Your task to perform on an android device: install app "PlayWell" Image 0: 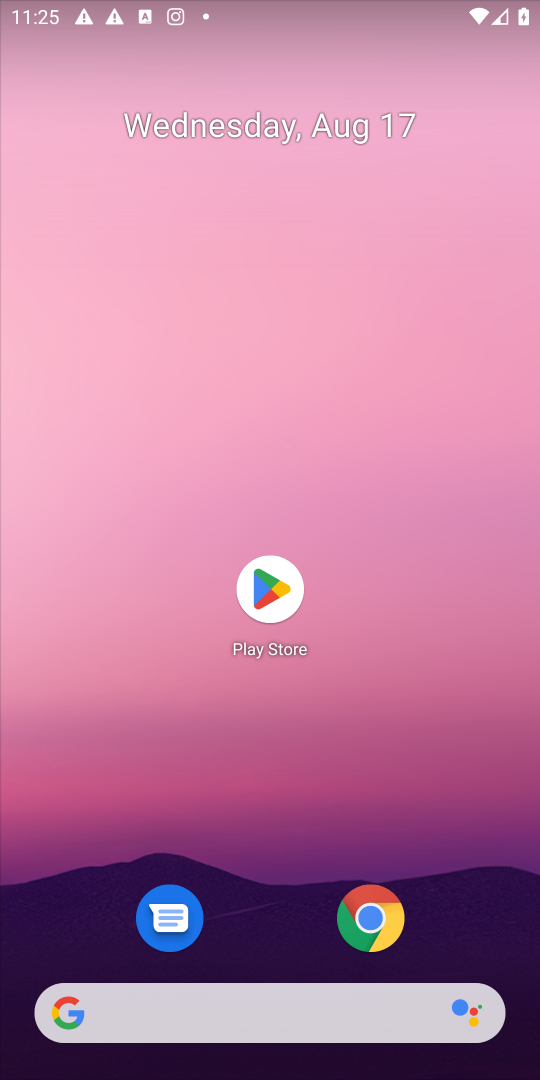
Step 0: click (278, 591)
Your task to perform on an android device: install app "PlayWell" Image 1: 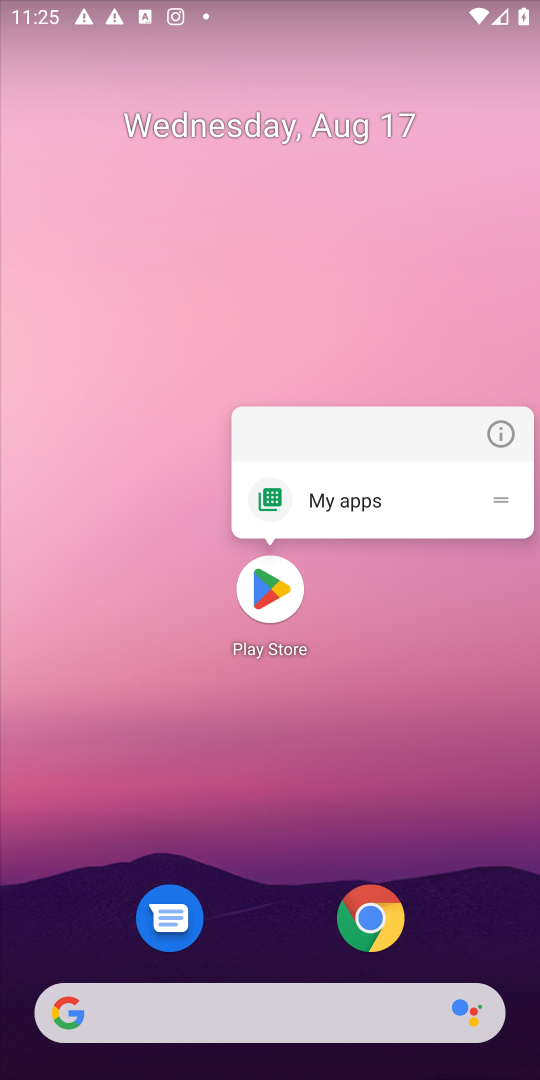
Step 1: click (272, 598)
Your task to perform on an android device: install app "PlayWell" Image 2: 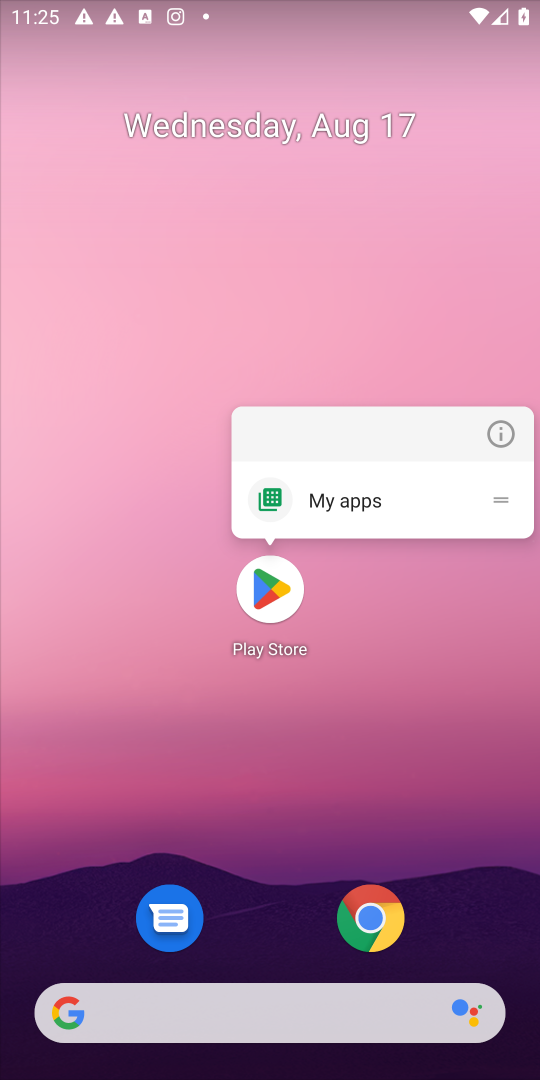
Step 2: click (263, 588)
Your task to perform on an android device: install app "PlayWell" Image 3: 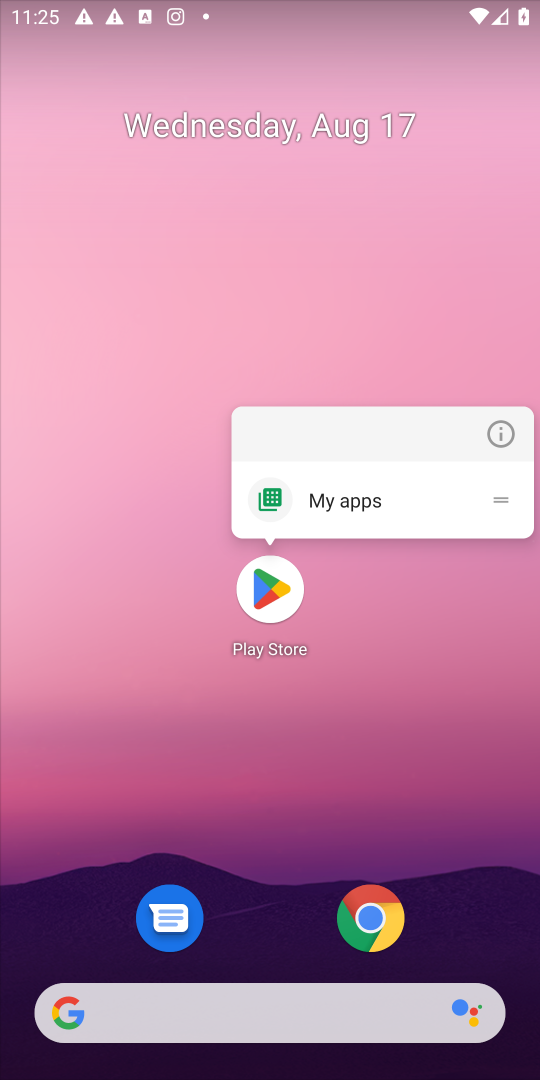
Step 3: click (266, 584)
Your task to perform on an android device: install app "PlayWell" Image 4: 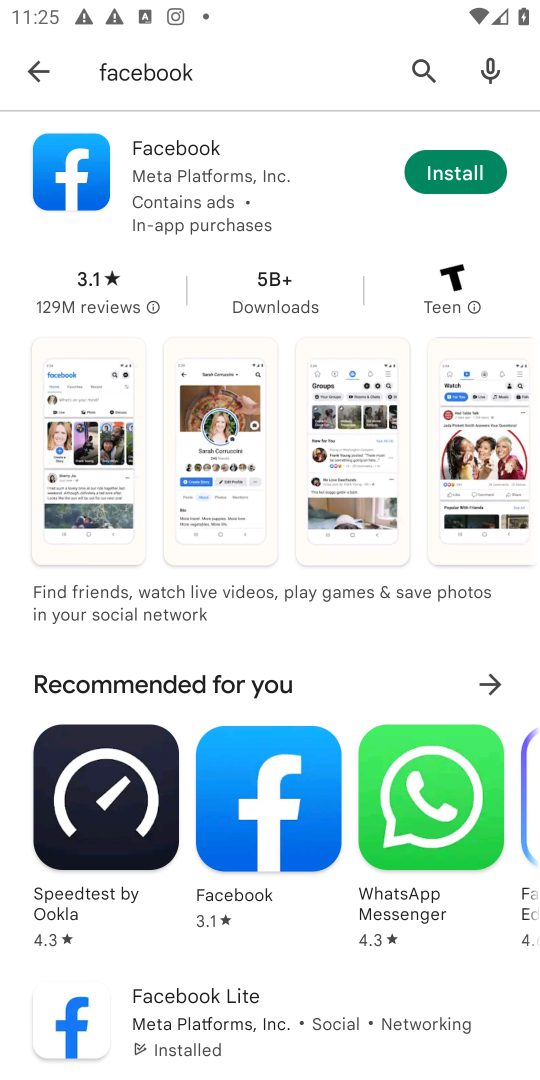
Step 4: click (414, 60)
Your task to perform on an android device: install app "PlayWell" Image 5: 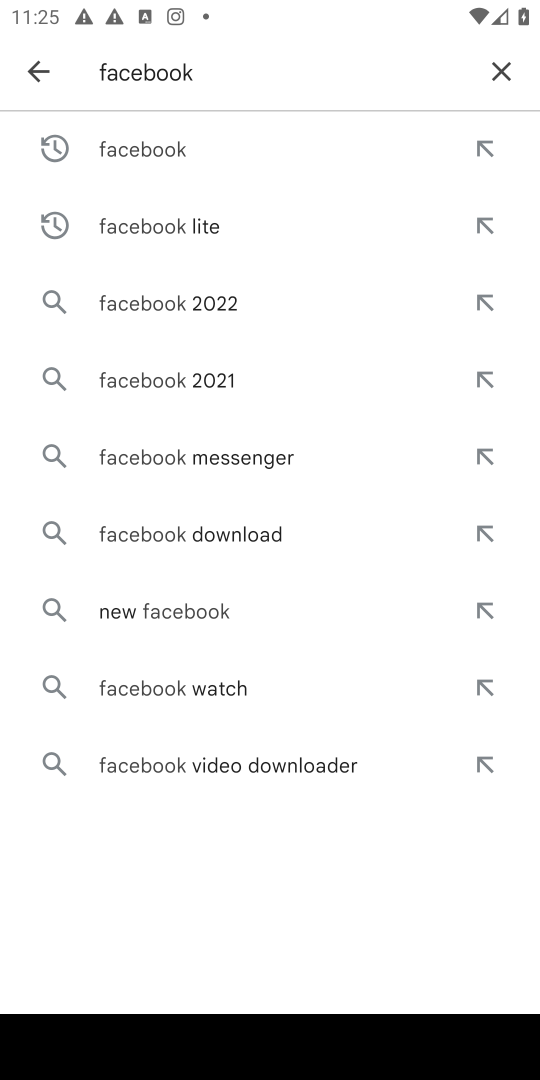
Step 5: click (494, 80)
Your task to perform on an android device: install app "PlayWell" Image 6: 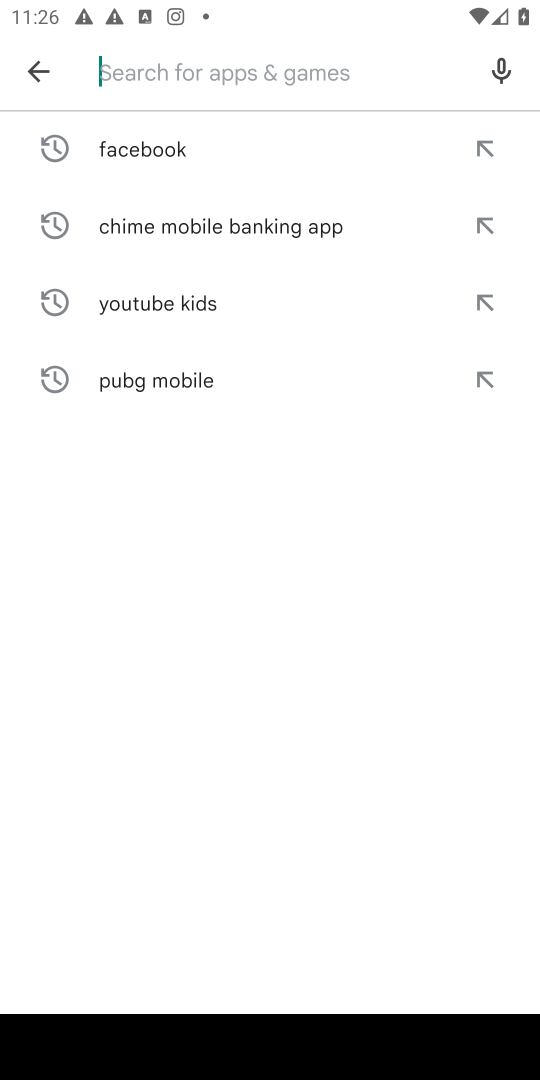
Step 6: type "PlayWell"
Your task to perform on an android device: install app "PlayWell" Image 7: 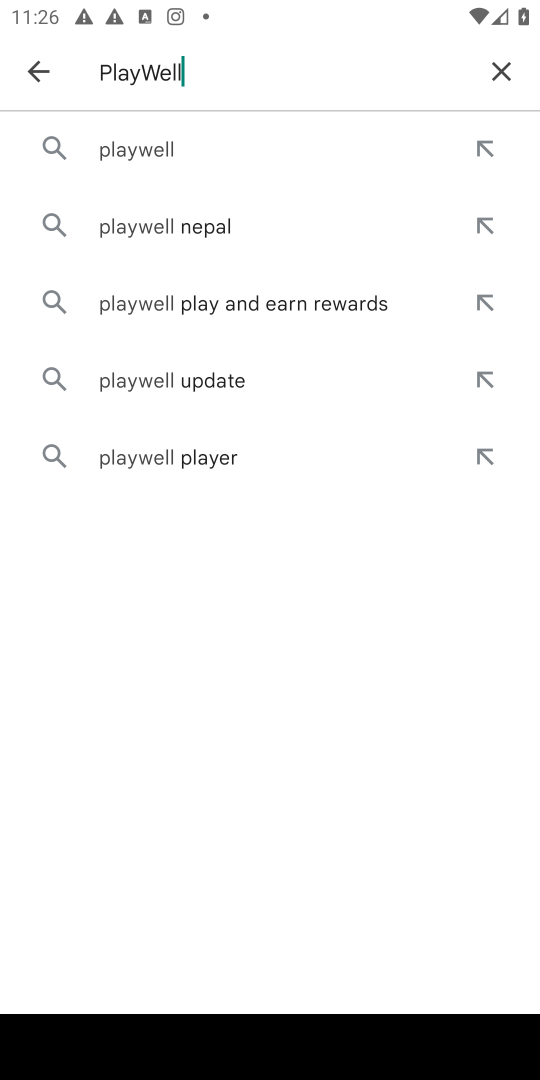
Step 7: click (117, 155)
Your task to perform on an android device: install app "PlayWell" Image 8: 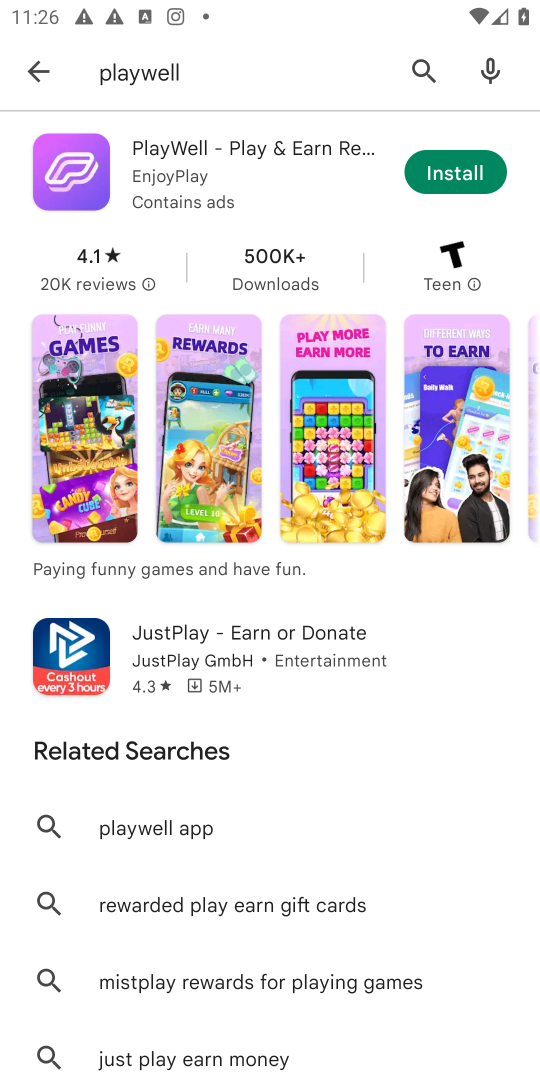
Step 8: click (455, 175)
Your task to perform on an android device: install app "PlayWell" Image 9: 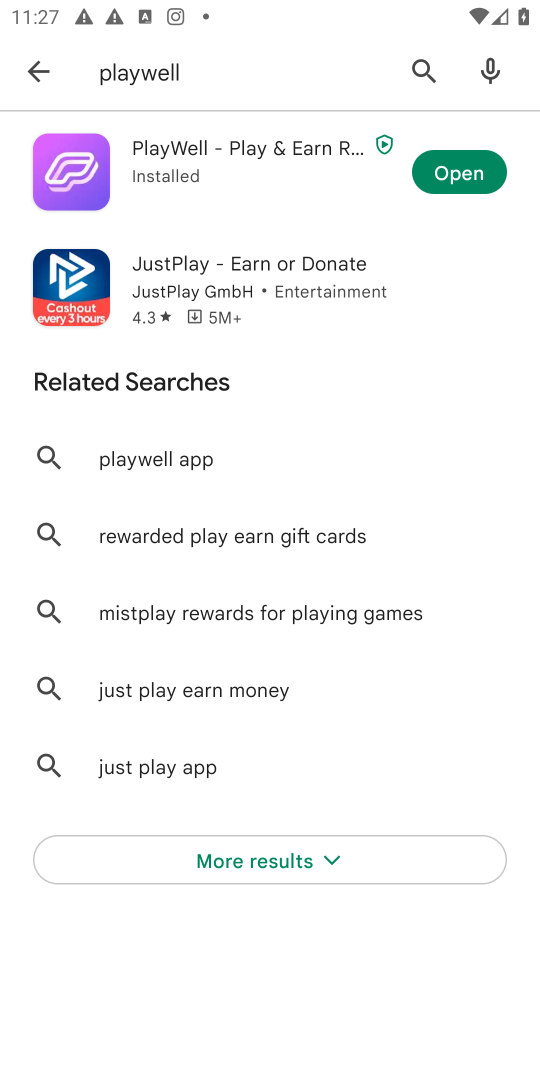
Step 9: task complete